Your task to perform on an android device: change alarm snooze length Image 0: 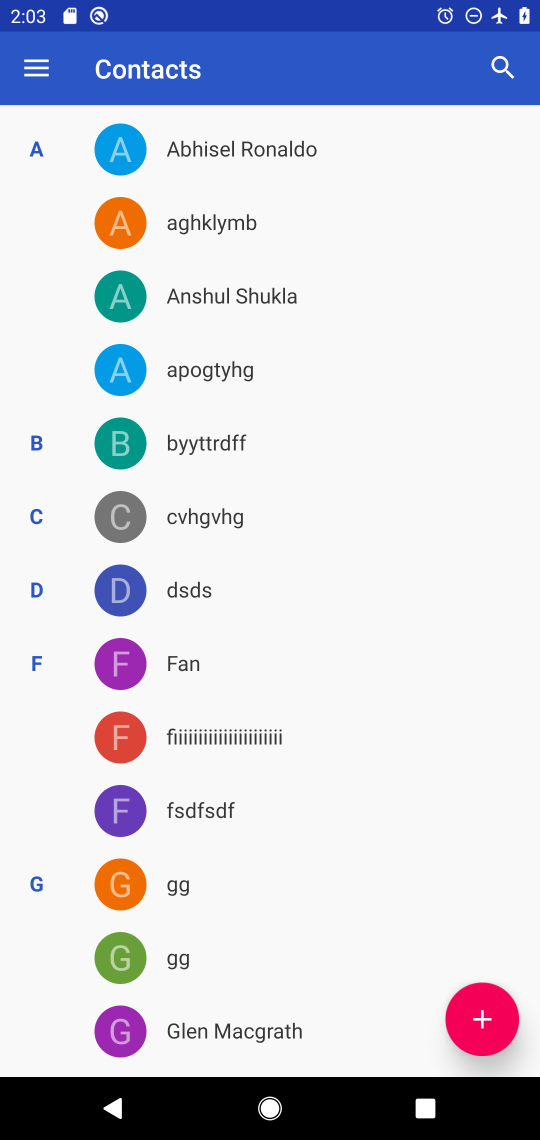
Step 0: press home button
Your task to perform on an android device: change alarm snooze length Image 1: 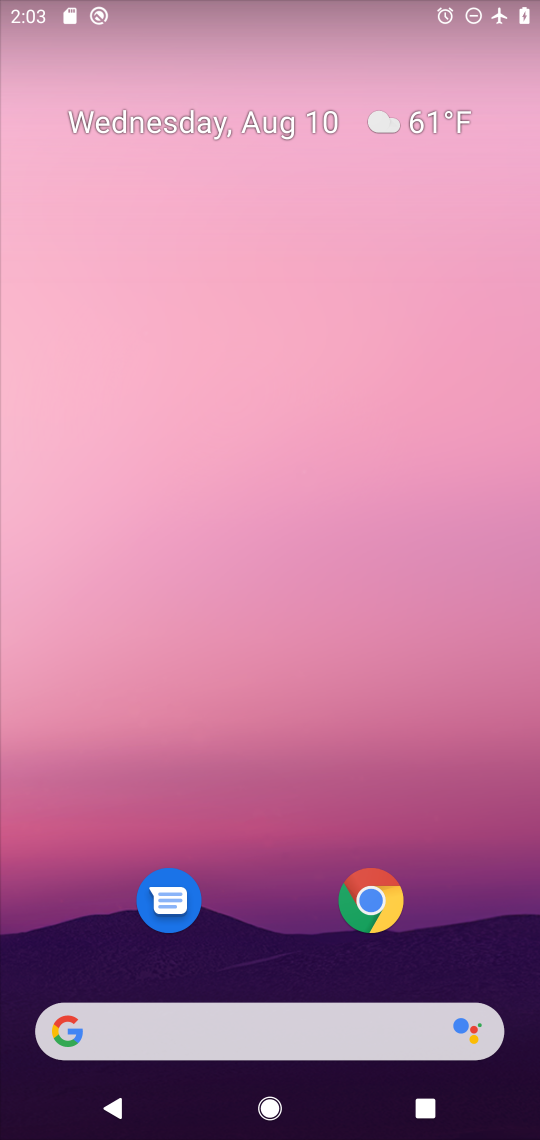
Step 1: drag from (282, 843) to (321, 1)
Your task to perform on an android device: change alarm snooze length Image 2: 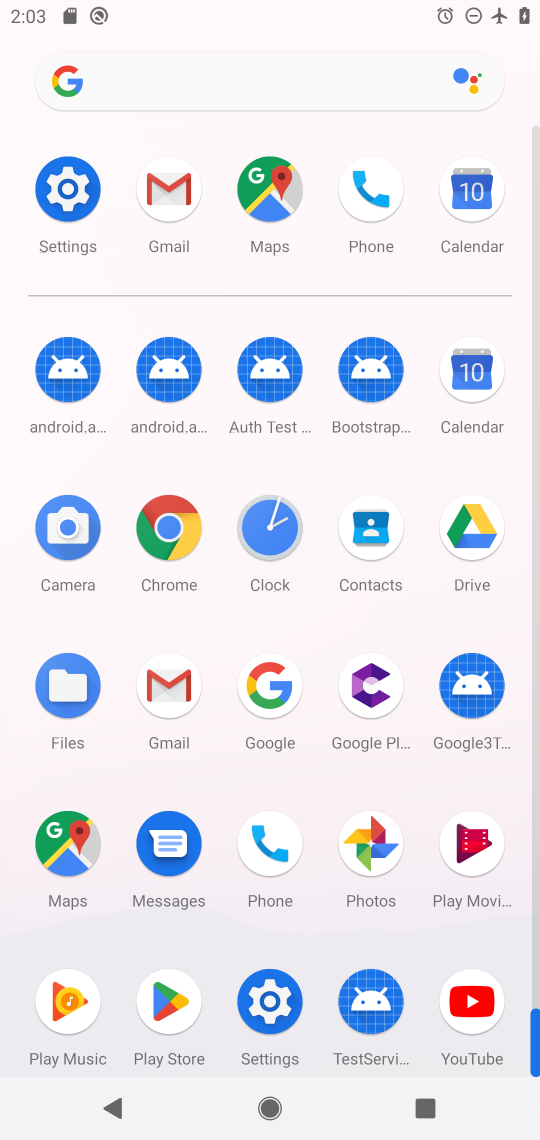
Step 2: click (275, 516)
Your task to perform on an android device: change alarm snooze length Image 3: 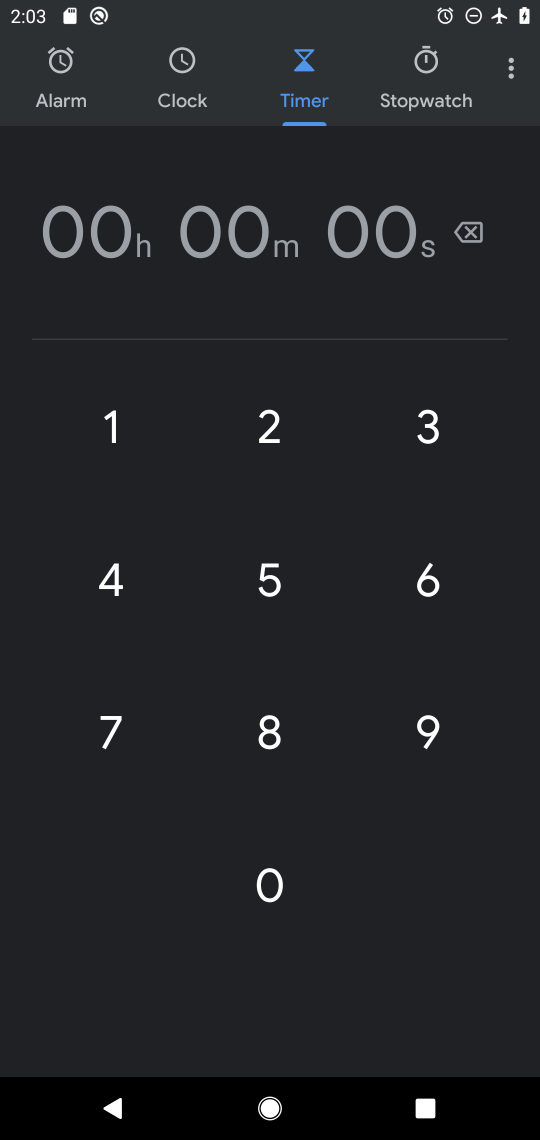
Step 3: click (508, 75)
Your task to perform on an android device: change alarm snooze length Image 4: 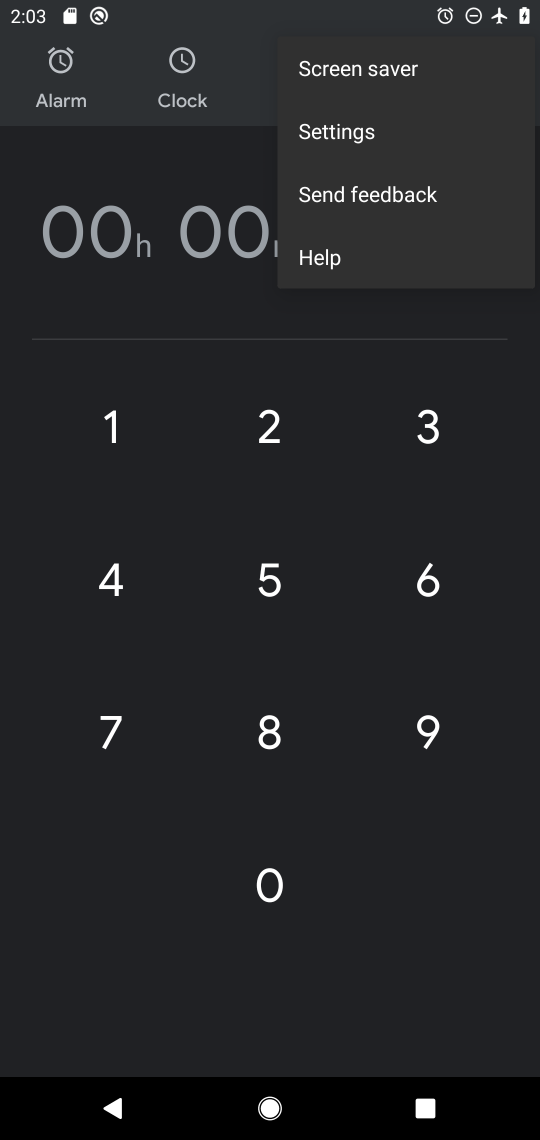
Step 4: click (397, 133)
Your task to perform on an android device: change alarm snooze length Image 5: 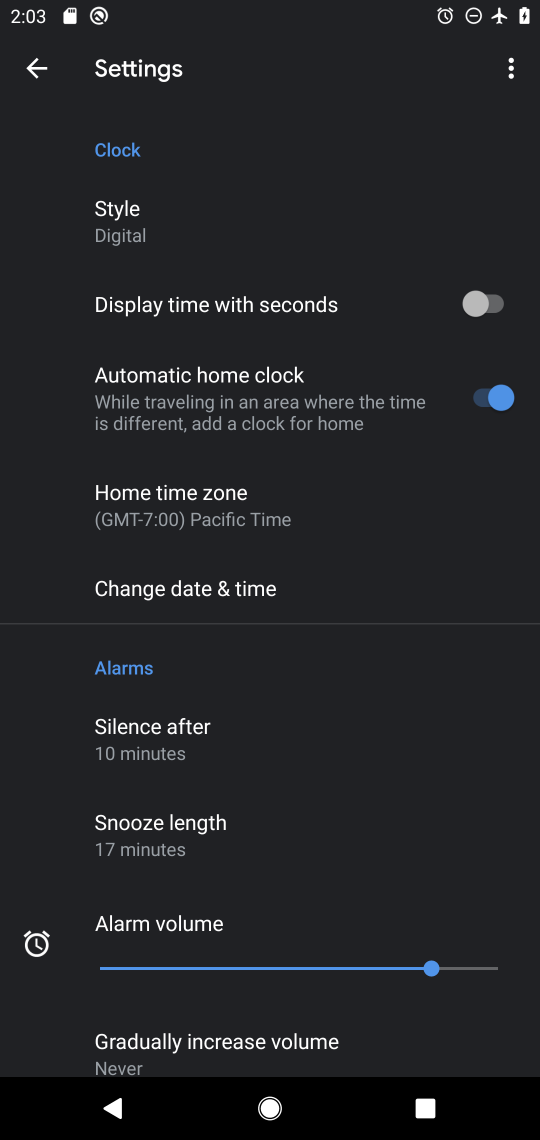
Step 5: click (213, 820)
Your task to perform on an android device: change alarm snooze length Image 6: 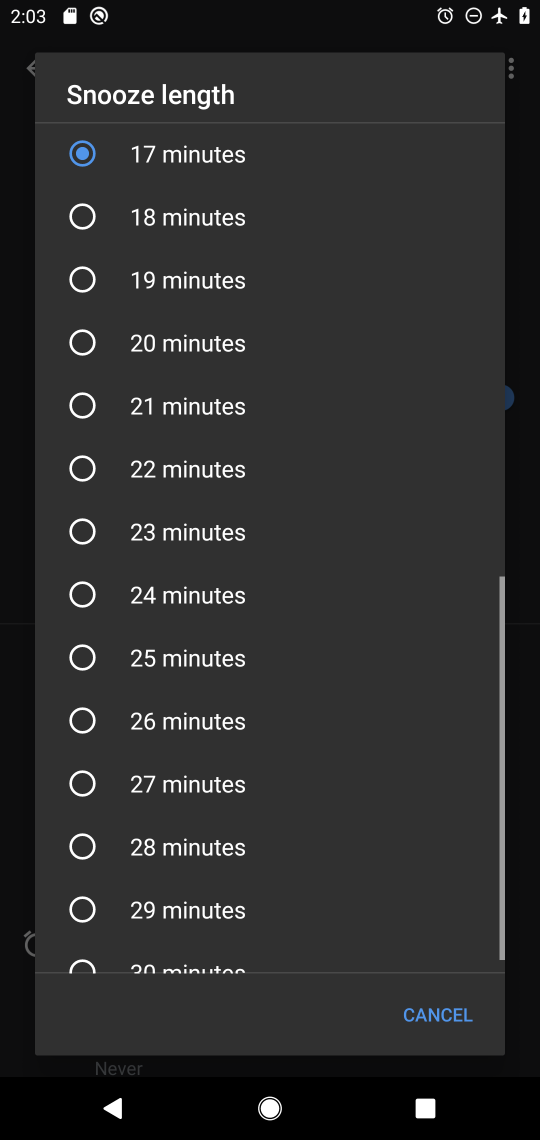
Step 6: drag from (278, 245) to (349, 841)
Your task to perform on an android device: change alarm snooze length Image 7: 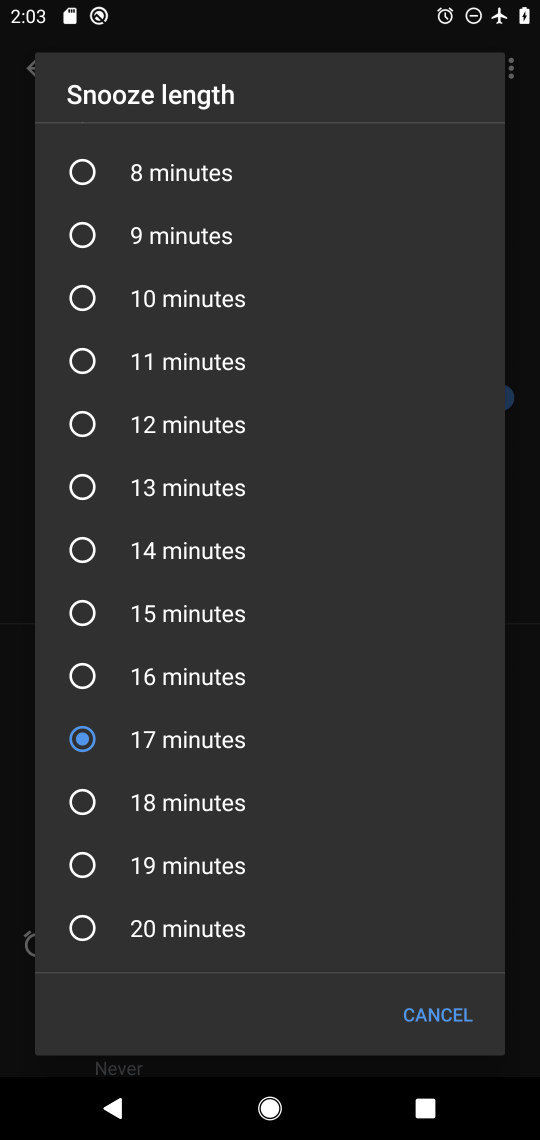
Step 7: click (77, 299)
Your task to perform on an android device: change alarm snooze length Image 8: 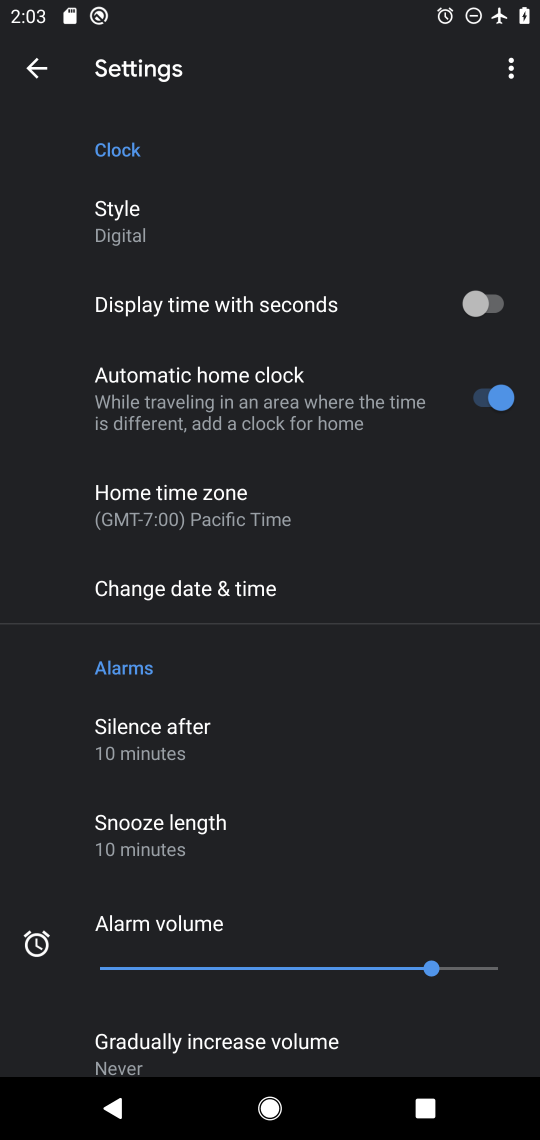
Step 8: task complete